Your task to perform on an android device: Go to Maps Image 0: 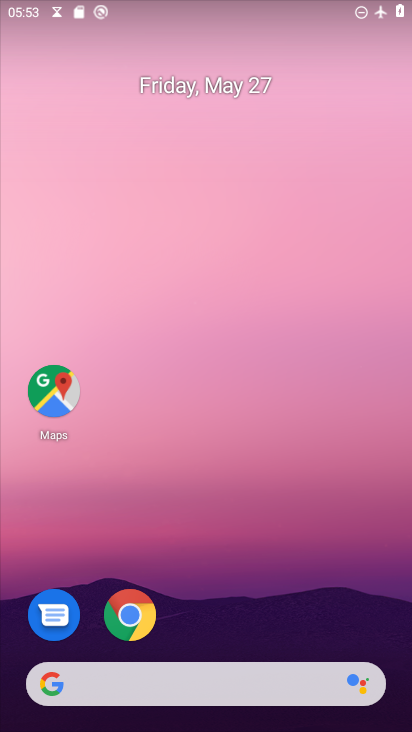
Step 0: click (48, 397)
Your task to perform on an android device: Go to Maps Image 1: 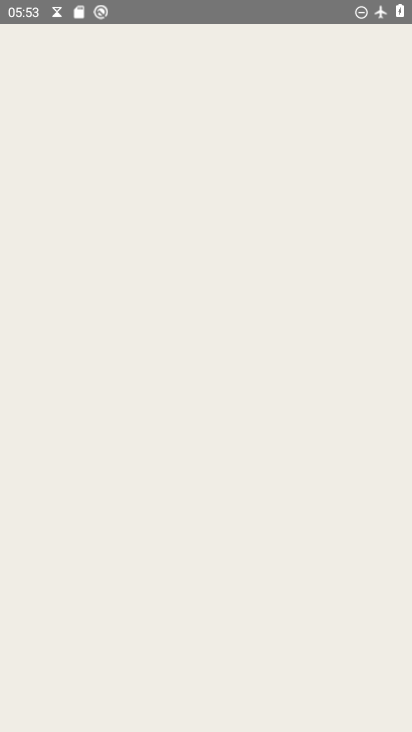
Step 1: task complete